Your task to perform on an android device: open a bookmark in the chrome app Image 0: 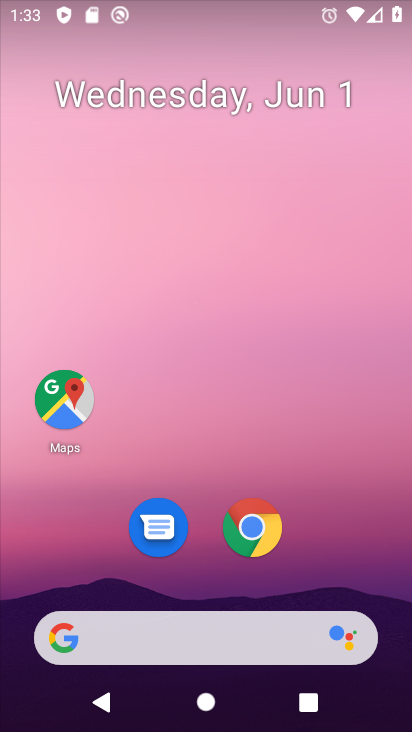
Step 0: drag from (376, 585) to (256, 200)
Your task to perform on an android device: open a bookmark in the chrome app Image 1: 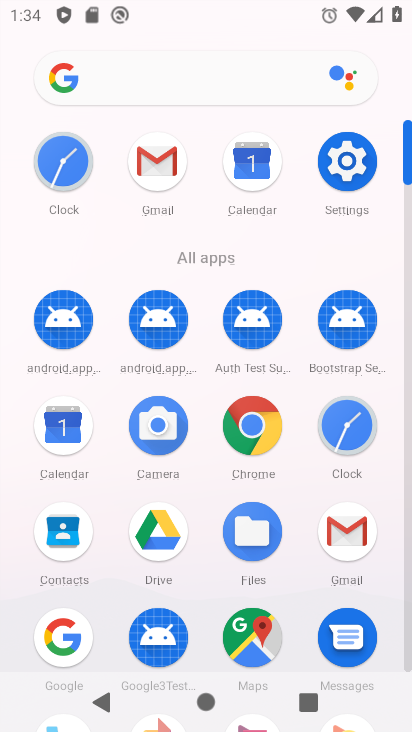
Step 1: click (250, 448)
Your task to perform on an android device: open a bookmark in the chrome app Image 2: 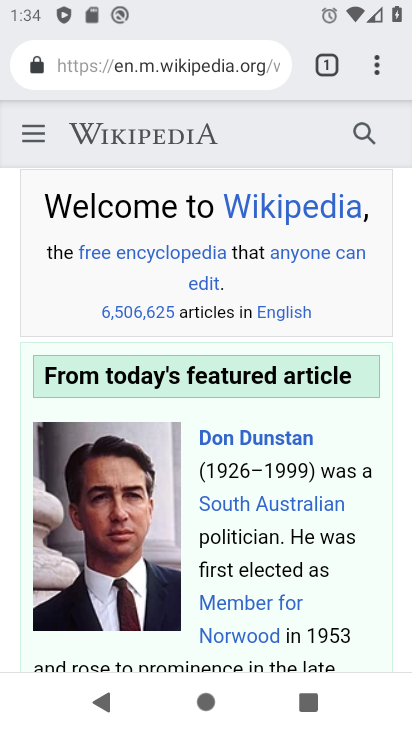
Step 2: click (377, 81)
Your task to perform on an android device: open a bookmark in the chrome app Image 3: 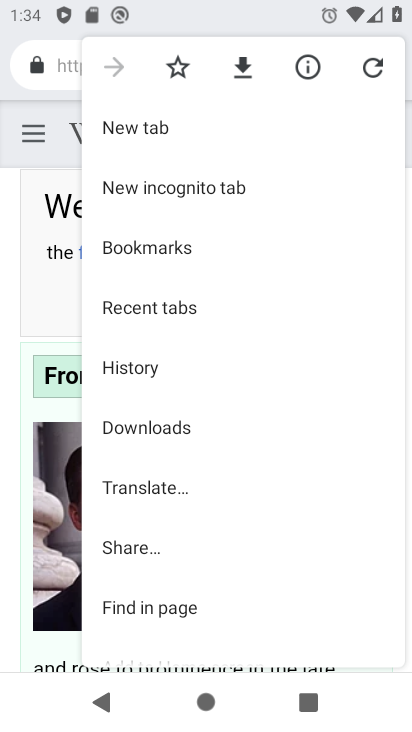
Step 3: click (208, 239)
Your task to perform on an android device: open a bookmark in the chrome app Image 4: 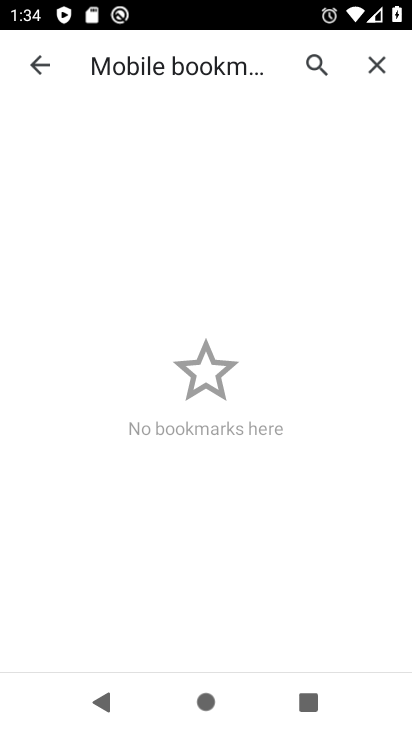
Step 4: task complete